Your task to perform on an android device: Go to Amazon Image 0: 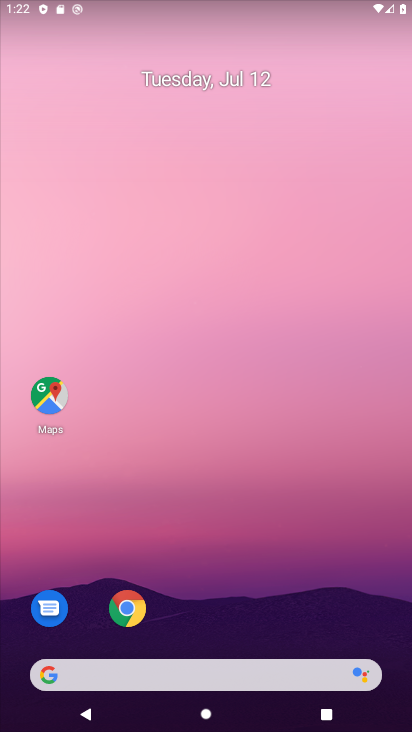
Step 0: click (129, 618)
Your task to perform on an android device: Go to Amazon Image 1: 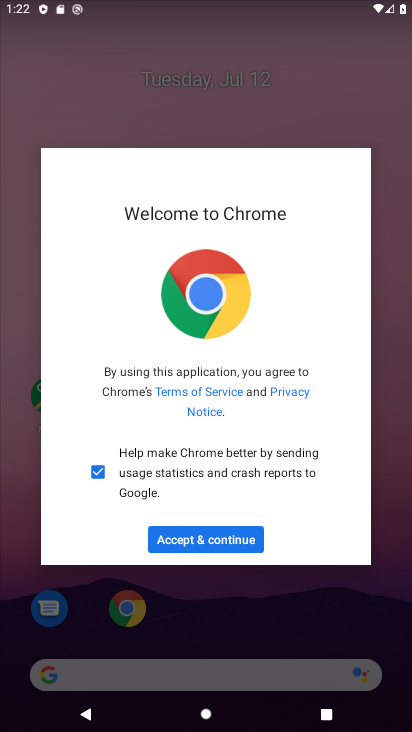
Step 1: click (248, 542)
Your task to perform on an android device: Go to Amazon Image 2: 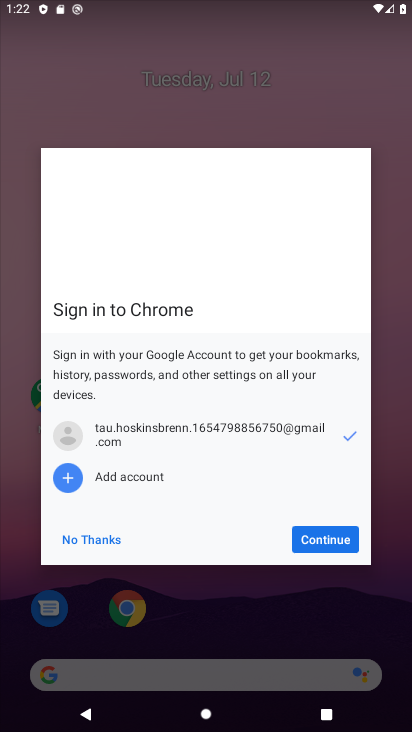
Step 2: click (327, 533)
Your task to perform on an android device: Go to Amazon Image 3: 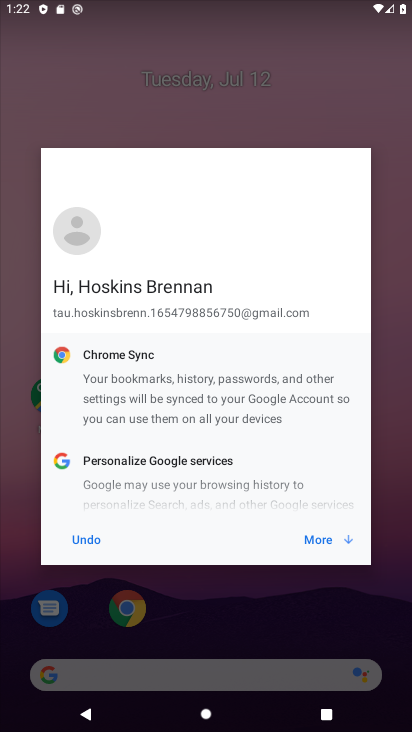
Step 3: click (328, 533)
Your task to perform on an android device: Go to Amazon Image 4: 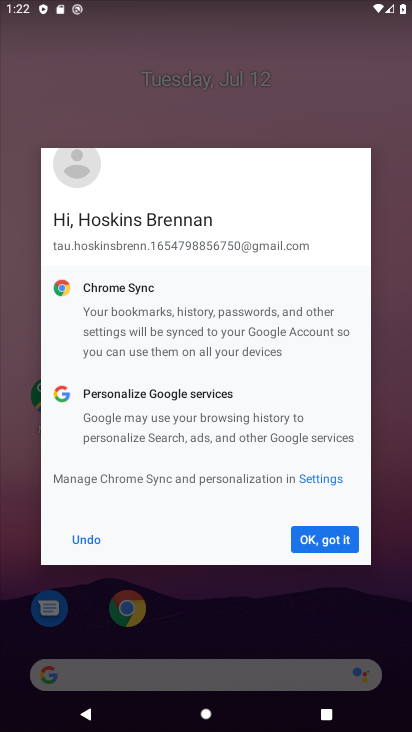
Step 4: click (328, 533)
Your task to perform on an android device: Go to Amazon Image 5: 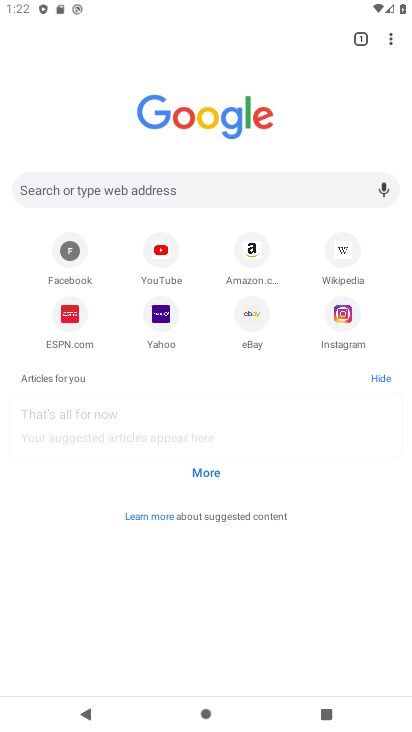
Step 5: click (252, 258)
Your task to perform on an android device: Go to Amazon Image 6: 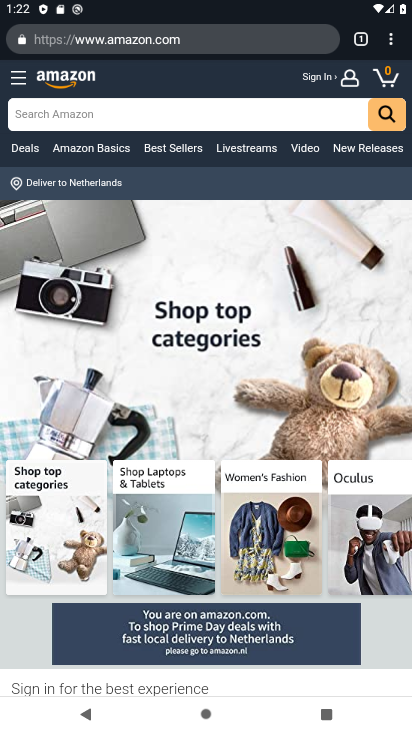
Step 6: task complete